Your task to perform on an android device: turn on bluetooth scan Image 0: 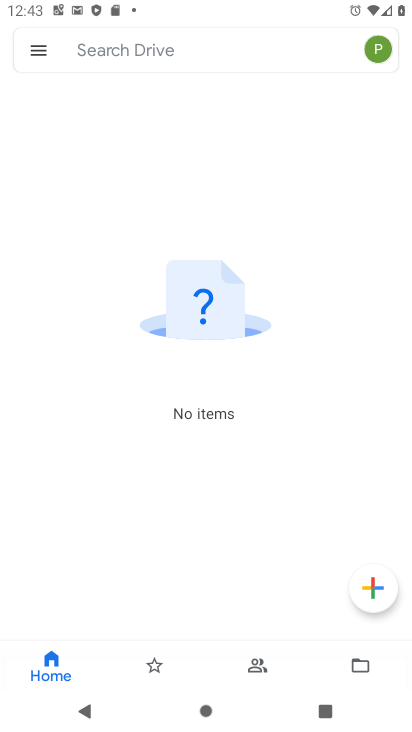
Step 0: press home button
Your task to perform on an android device: turn on bluetooth scan Image 1: 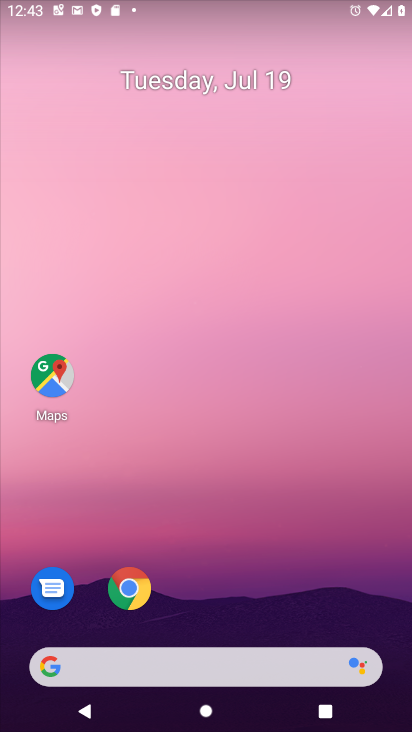
Step 1: drag from (307, 585) to (263, 142)
Your task to perform on an android device: turn on bluetooth scan Image 2: 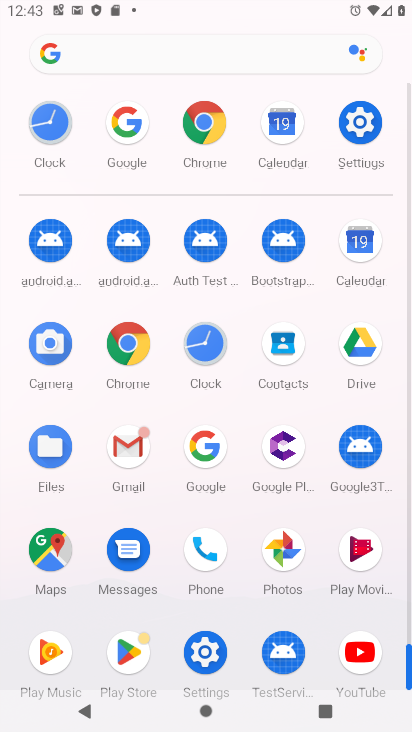
Step 2: click (197, 662)
Your task to perform on an android device: turn on bluetooth scan Image 3: 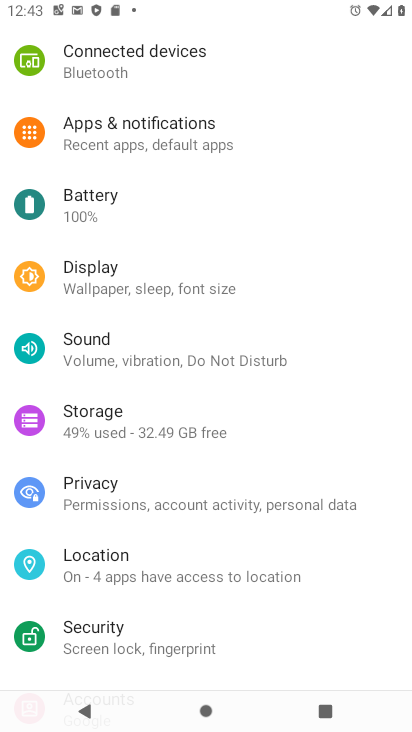
Step 3: click (118, 577)
Your task to perform on an android device: turn on bluetooth scan Image 4: 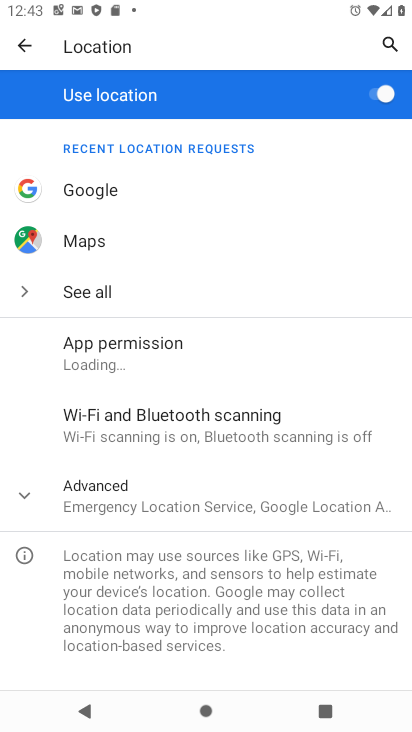
Step 4: click (158, 420)
Your task to perform on an android device: turn on bluetooth scan Image 5: 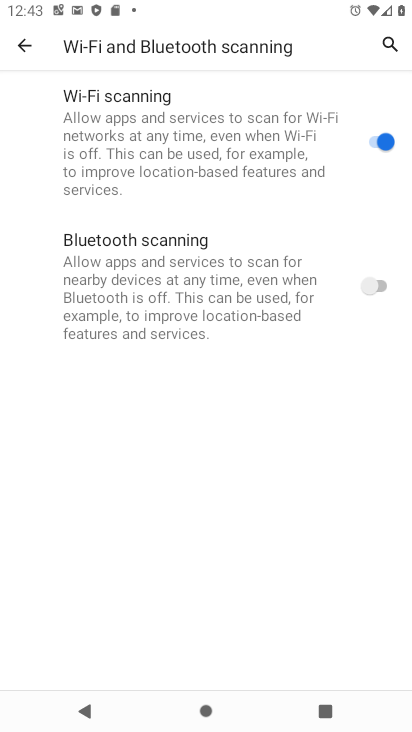
Step 5: click (377, 311)
Your task to perform on an android device: turn on bluetooth scan Image 6: 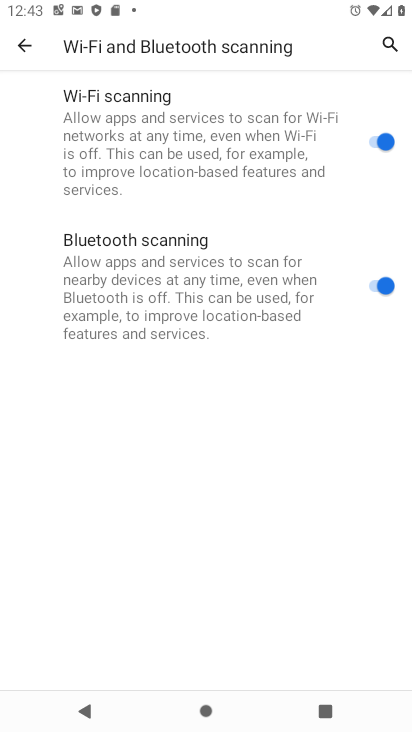
Step 6: task complete